Your task to perform on an android device: clear history in the chrome app Image 0: 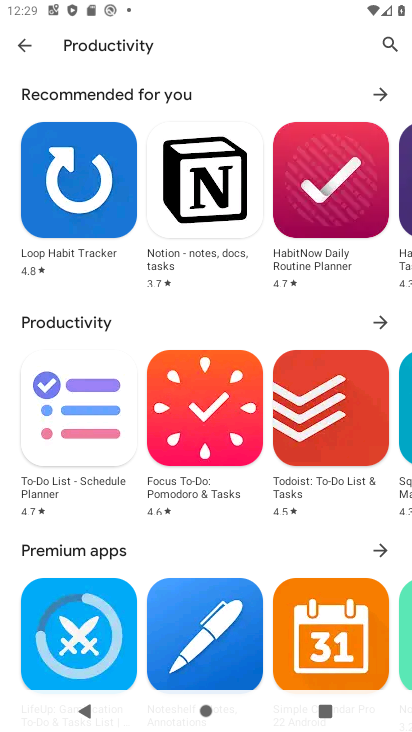
Step 0: press home button
Your task to perform on an android device: clear history in the chrome app Image 1: 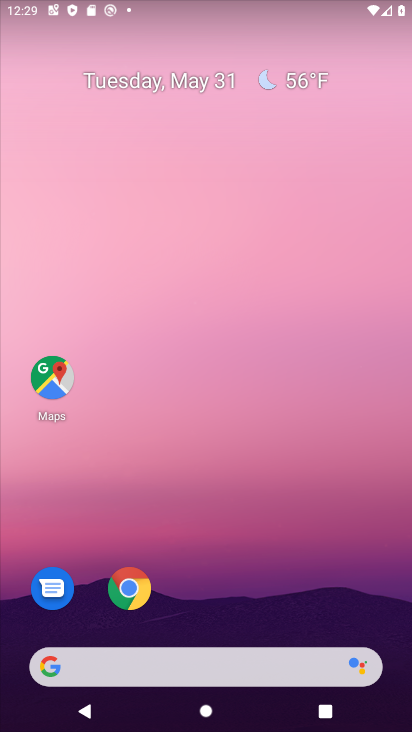
Step 1: click (134, 598)
Your task to perform on an android device: clear history in the chrome app Image 2: 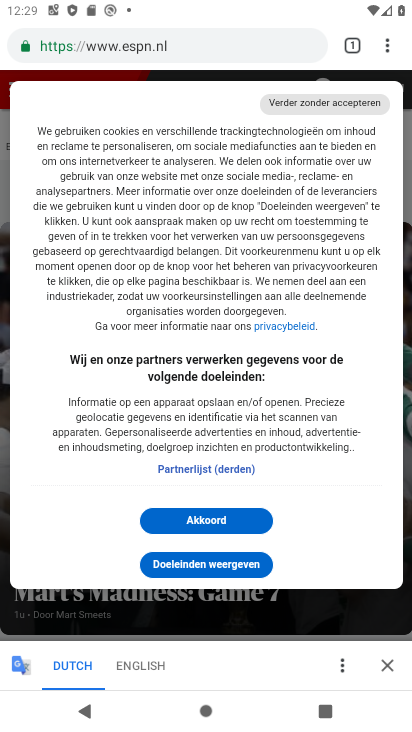
Step 2: click (388, 50)
Your task to perform on an android device: clear history in the chrome app Image 3: 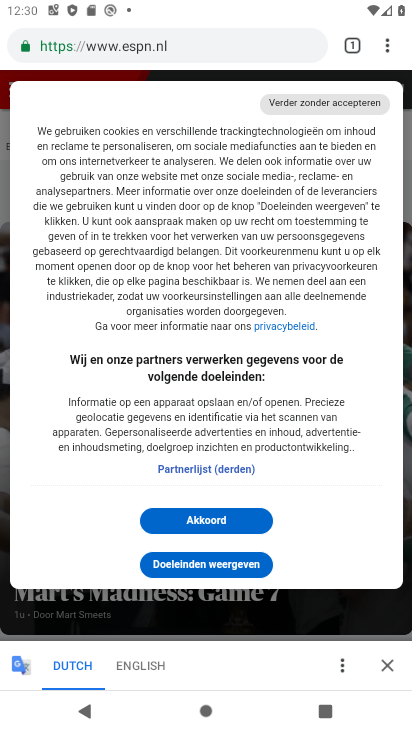
Step 3: click (388, 50)
Your task to perform on an android device: clear history in the chrome app Image 4: 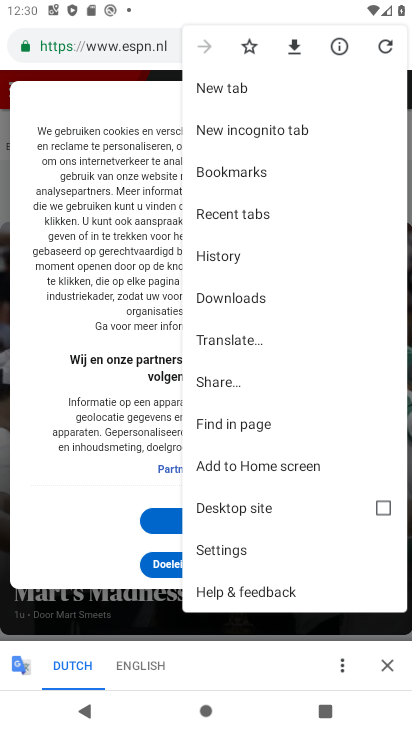
Step 4: click (218, 252)
Your task to perform on an android device: clear history in the chrome app Image 5: 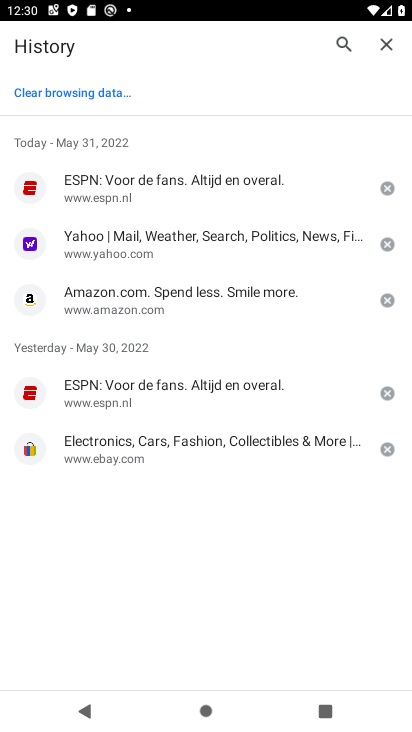
Step 5: click (51, 86)
Your task to perform on an android device: clear history in the chrome app Image 6: 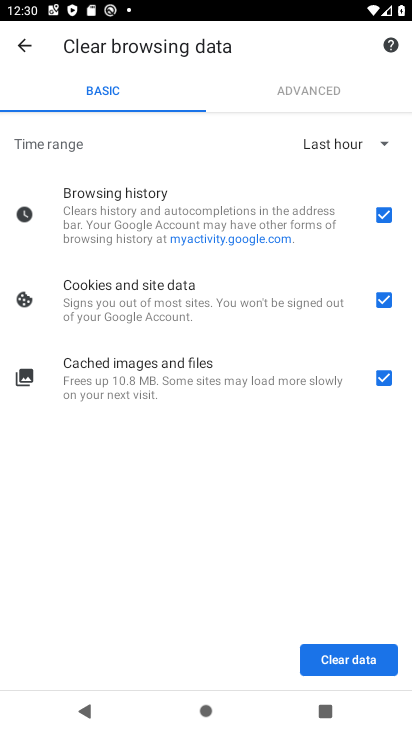
Step 6: click (336, 668)
Your task to perform on an android device: clear history in the chrome app Image 7: 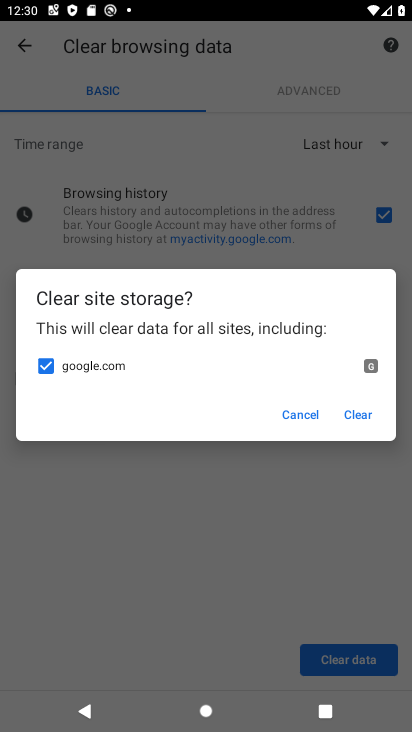
Step 7: click (351, 410)
Your task to perform on an android device: clear history in the chrome app Image 8: 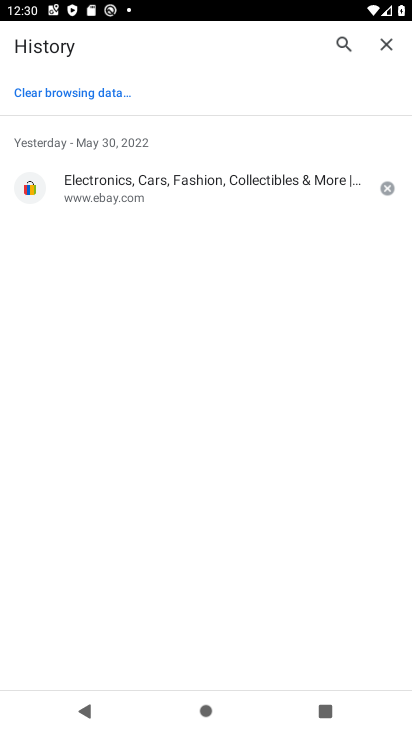
Step 8: task complete